Your task to perform on an android device: Turn off the flashlight Image 0: 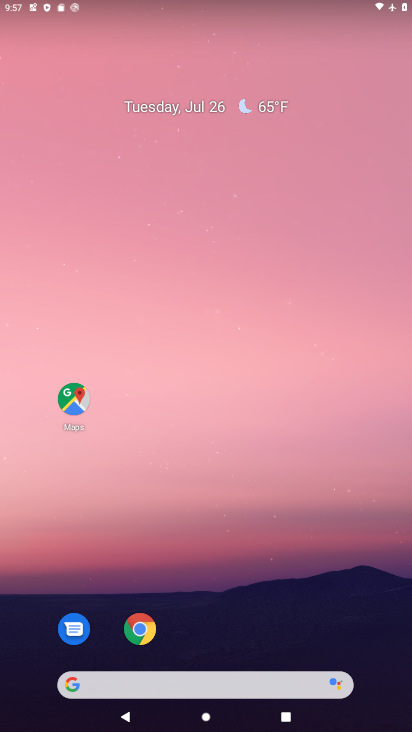
Step 0: drag from (273, 577) to (164, 58)
Your task to perform on an android device: Turn off the flashlight Image 1: 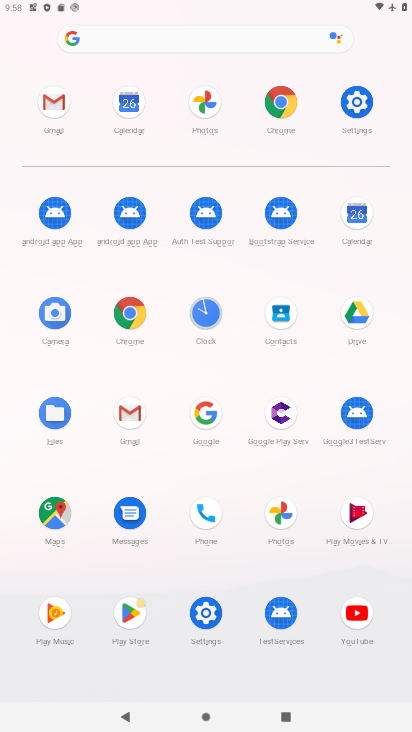
Step 1: click (360, 106)
Your task to perform on an android device: Turn off the flashlight Image 2: 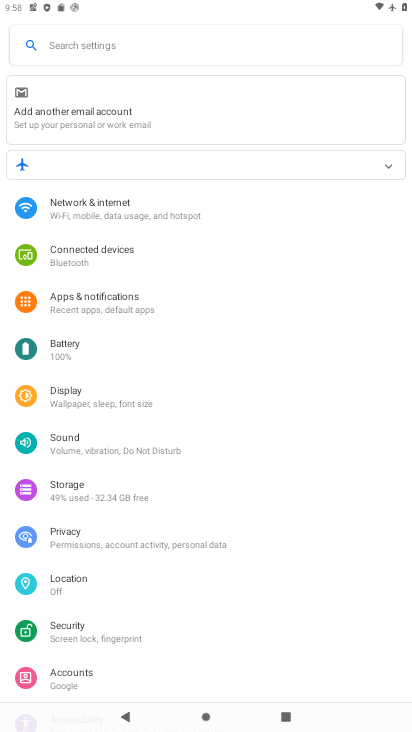
Step 2: click (115, 403)
Your task to perform on an android device: Turn off the flashlight Image 3: 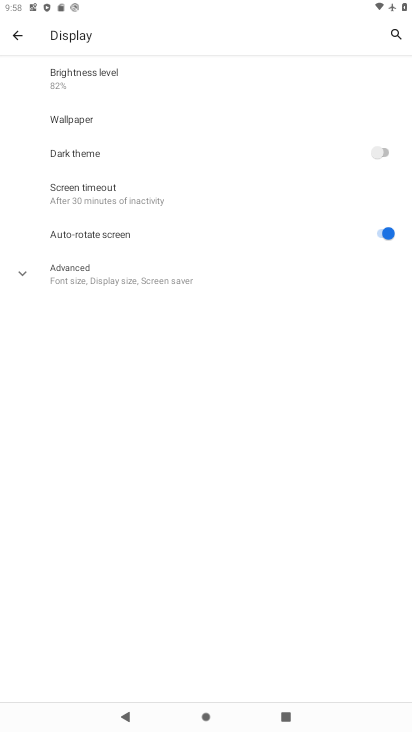
Step 3: click (180, 194)
Your task to perform on an android device: Turn off the flashlight Image 4: 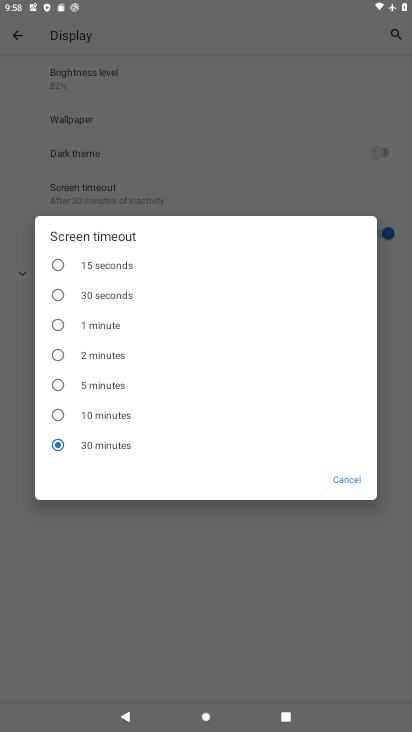
Step 4: task complete